Your task to perform on an android device: turn on showing notifications on the lock screen Image 0: 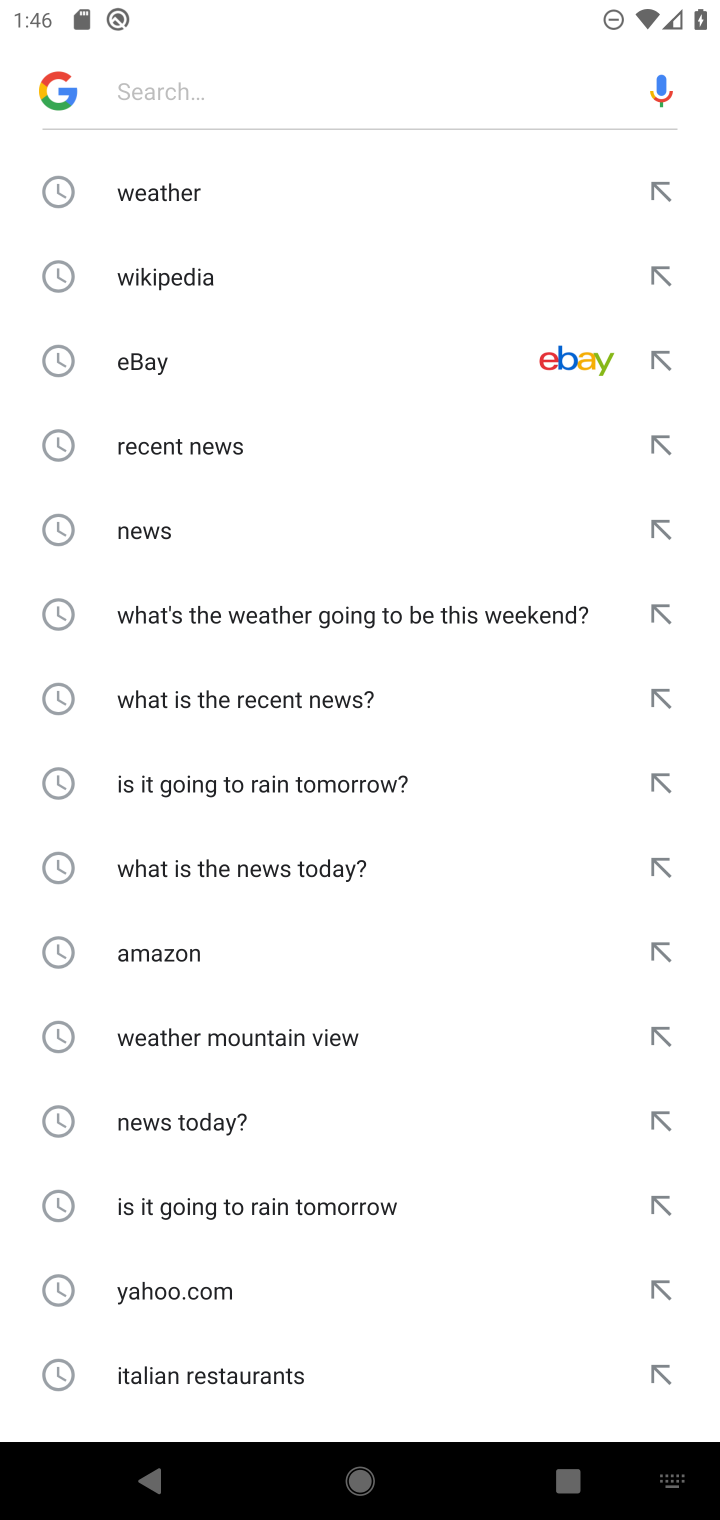
Step 0: press home button
Your task to perform on an android device: turn on showing notifications on the lock screen Image 1: 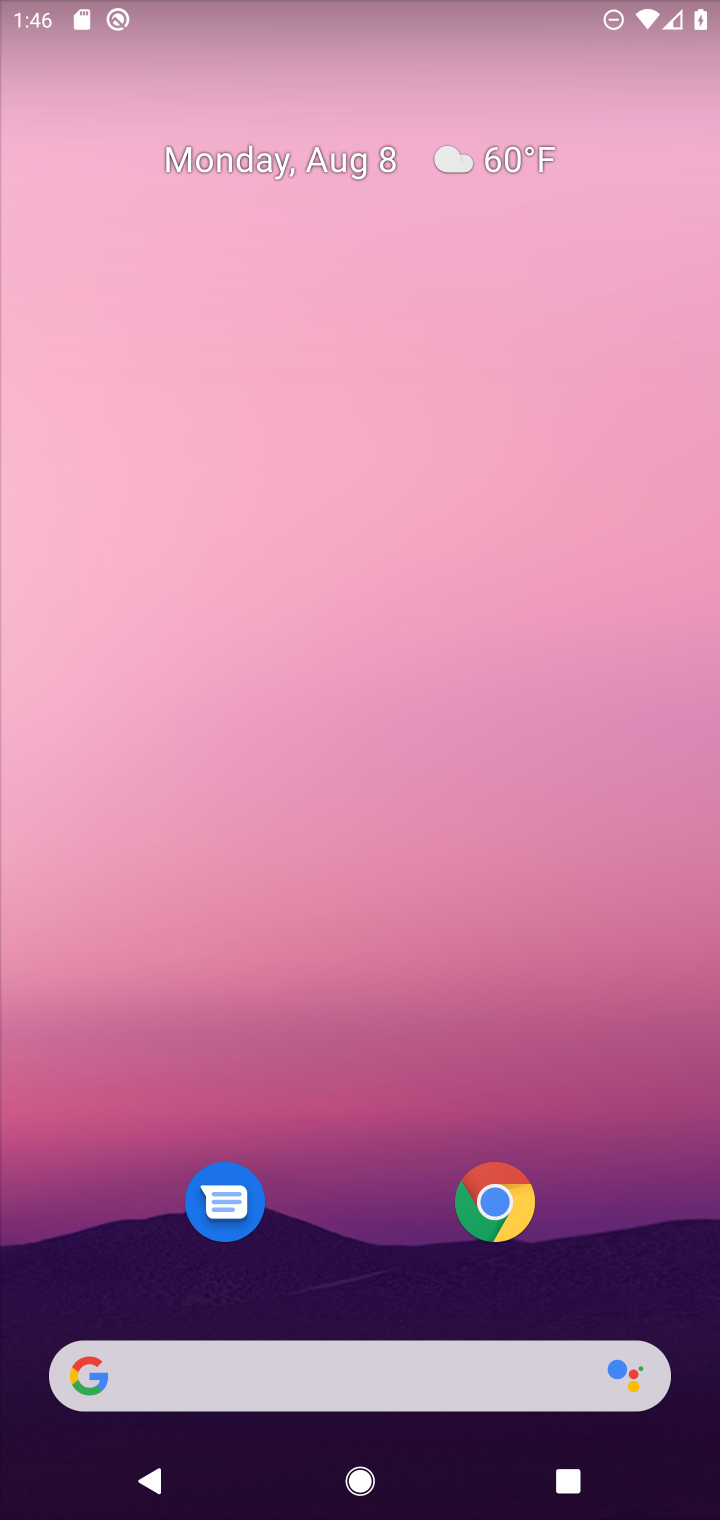
Step 1: drag from (413, 1146) to (482, 327)
Your task to perform on an android device: turn on showing notifications on the lock screen Image 2: 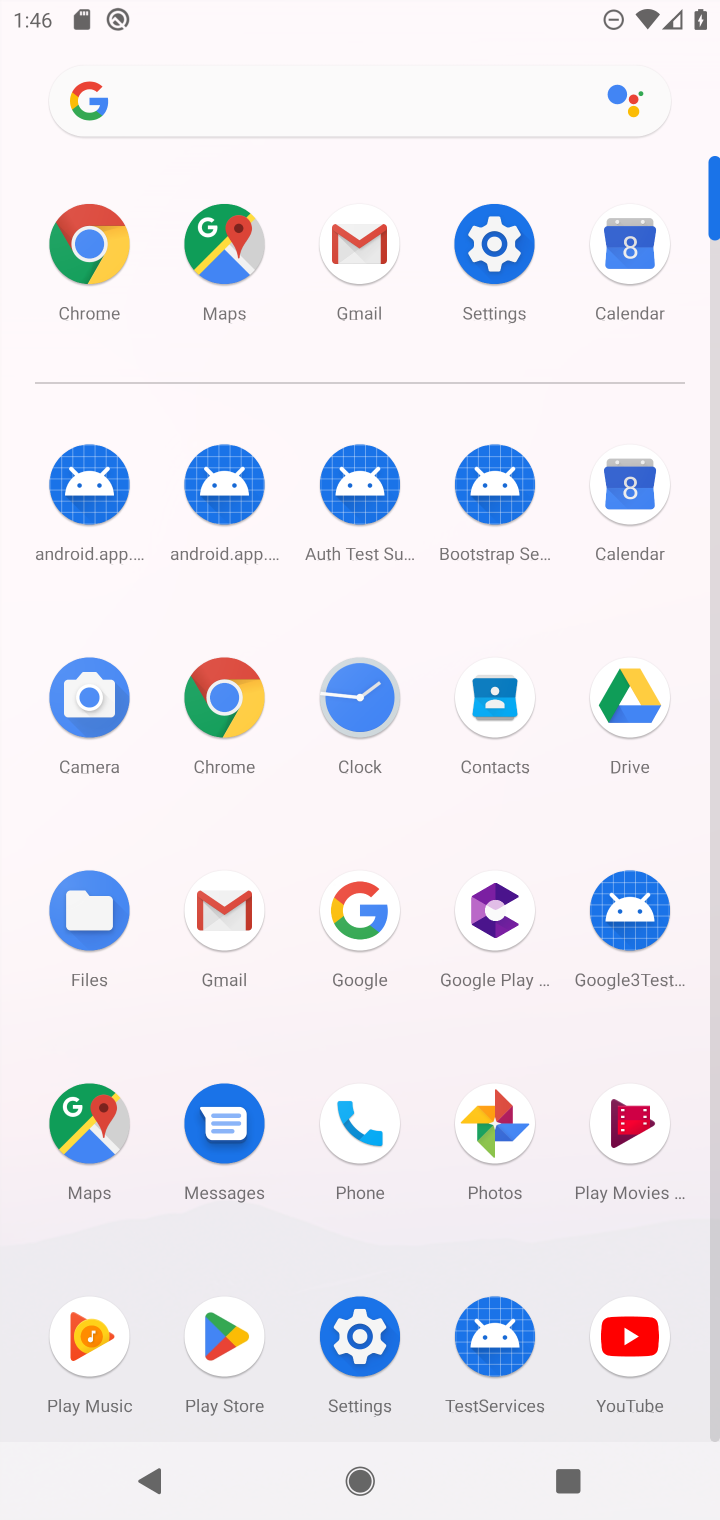
Step 2: click (491, 235)
Your task to perform on an android device: turn on showing notifications on the lock screen Image 3: 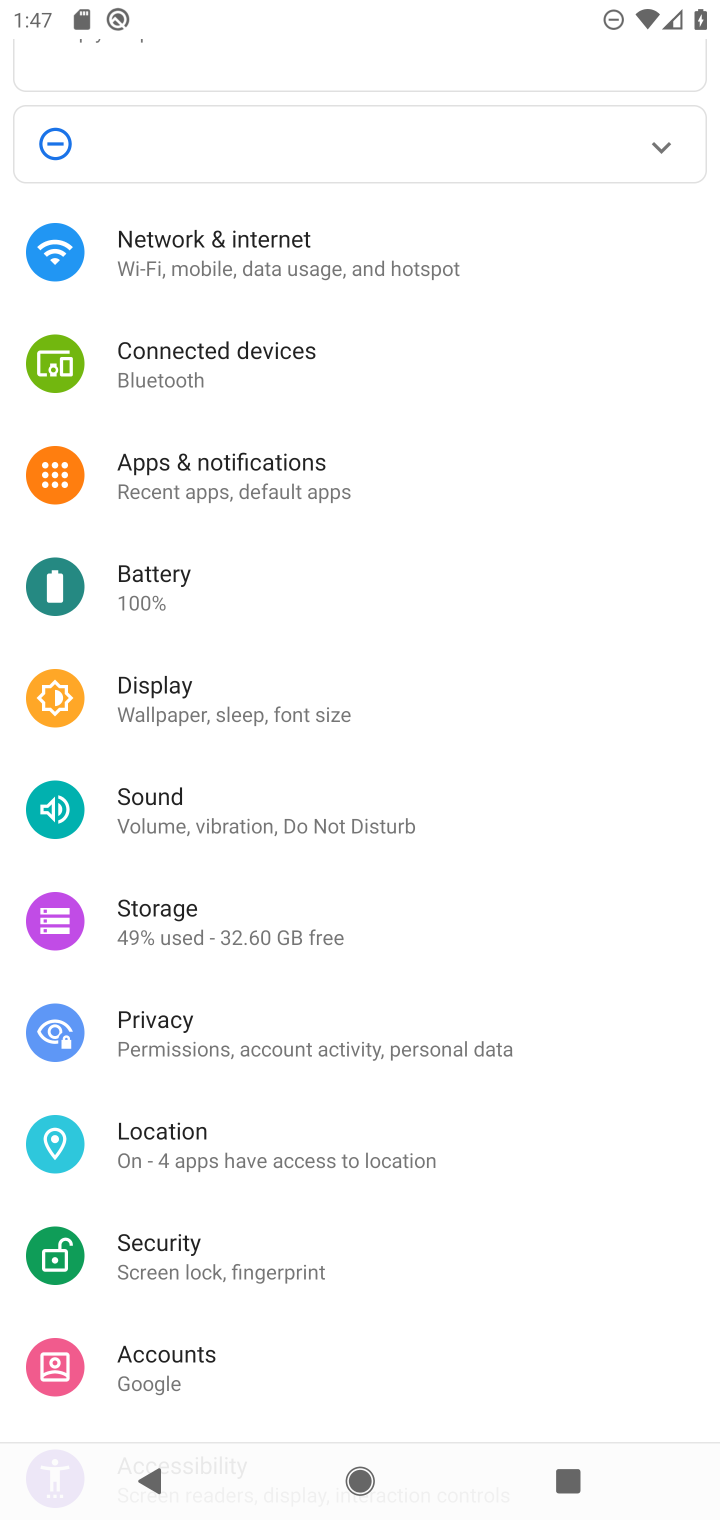
Step 3: click (595, 686)
Your task to perform on an android device: turn on showing notifications on the lock screen Image 4: 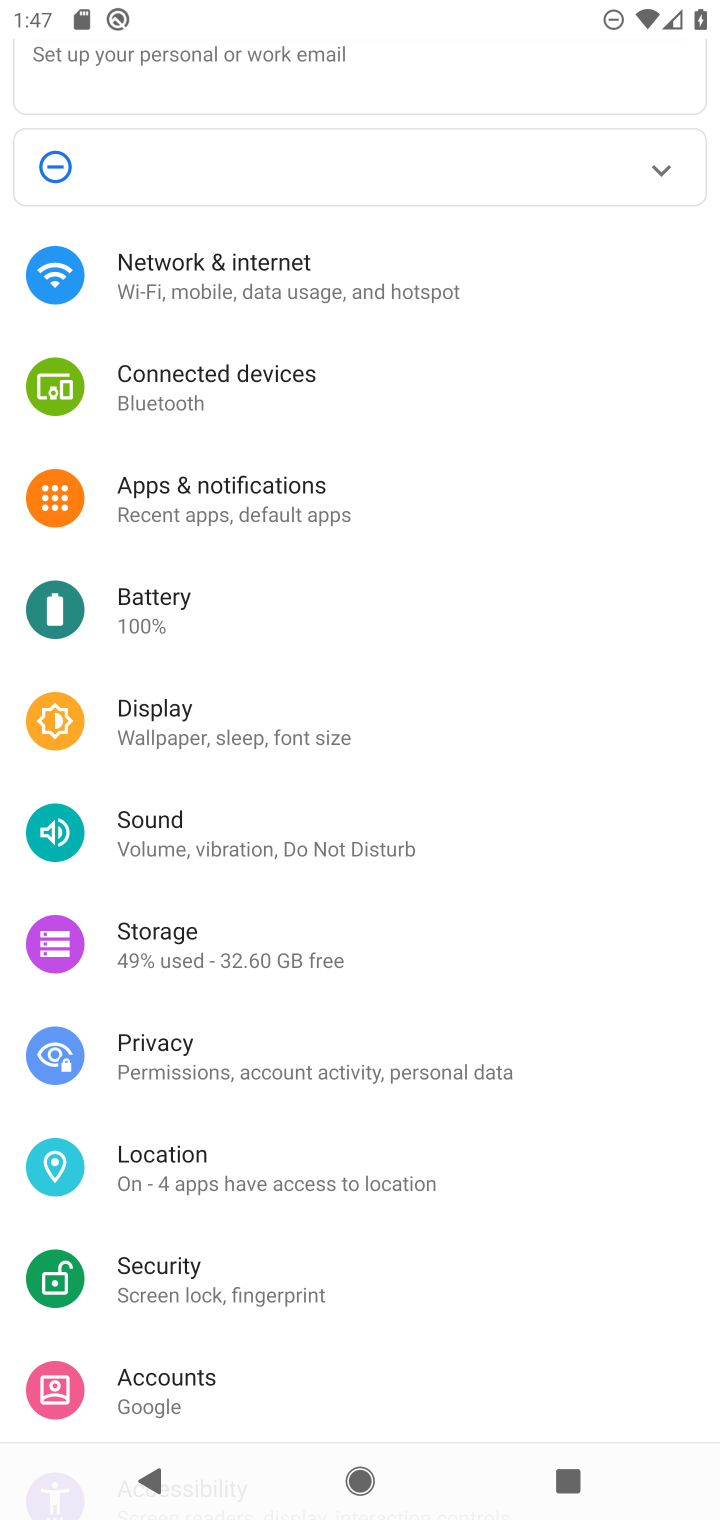
Step 4: drag from (586, 611) to (633, 874)
Your task to perform on an android device: turn on showing notifications on the lock screen Image 5: 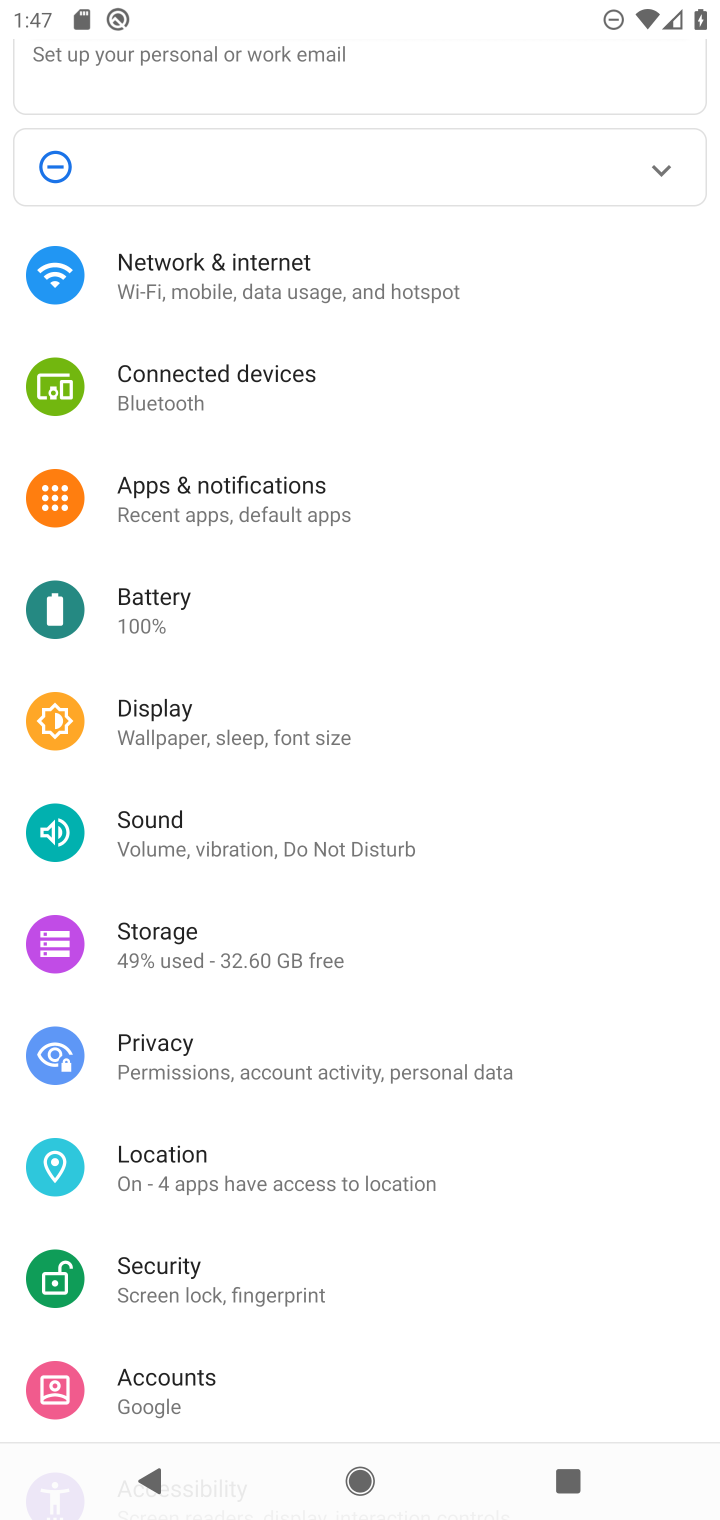
Step 5: click (263, 488)
Your task to perform on an android device: turn on showing notifications on the lock screen Image 6: 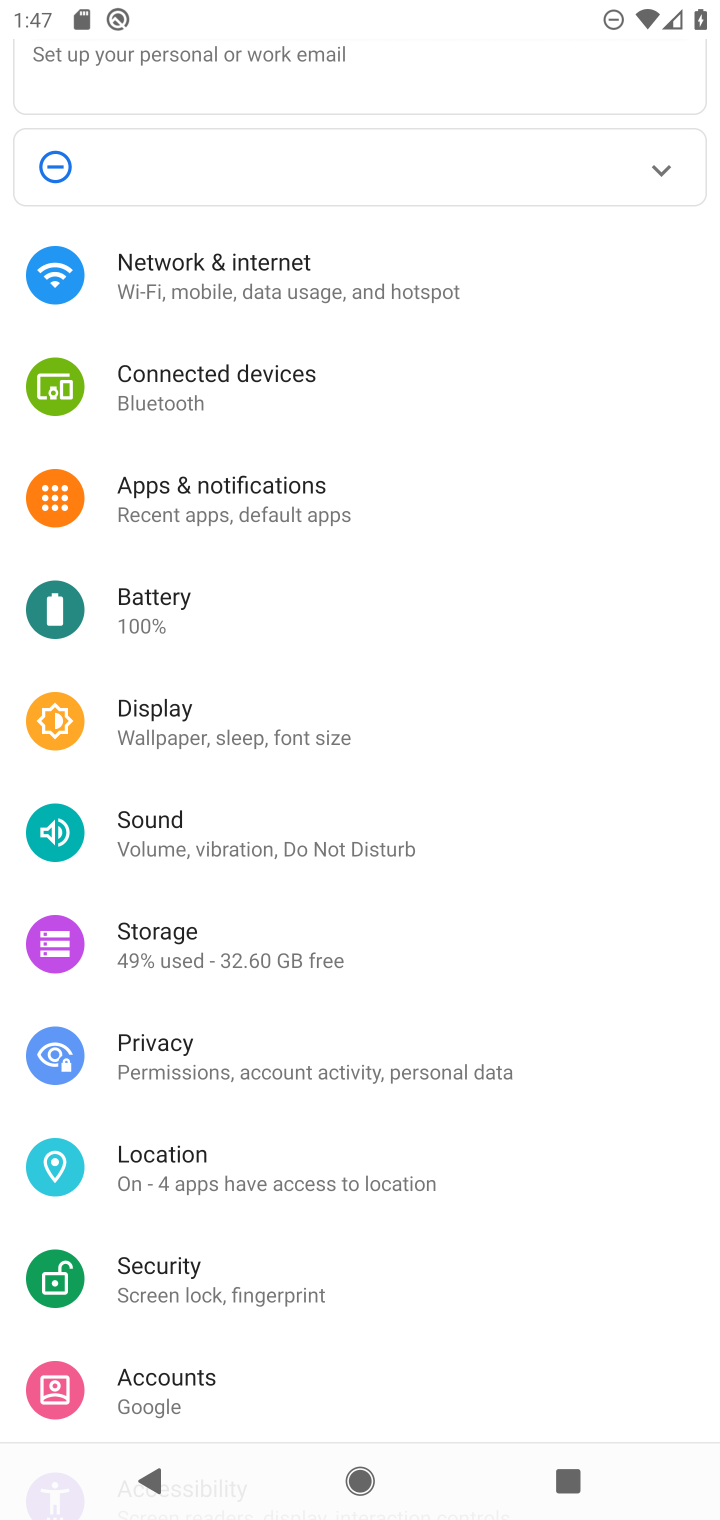
Step 6: click (267, 500)
Your task to perform on an android device: turn on showing notifications on the lock screen Image 7: 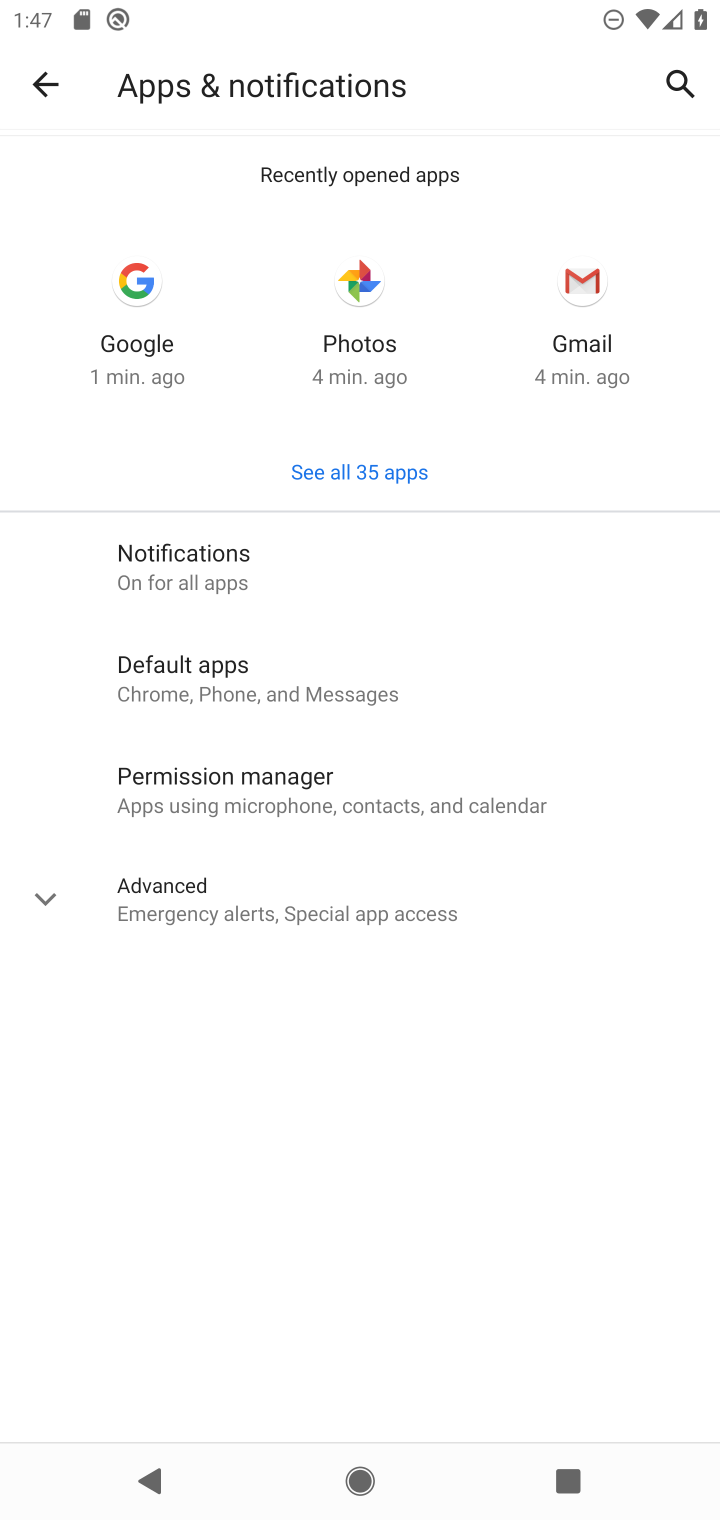
Step 7: click (221, 560)
Your task to perform on an android device: turn on showing notifications on the lock screen Image 8: 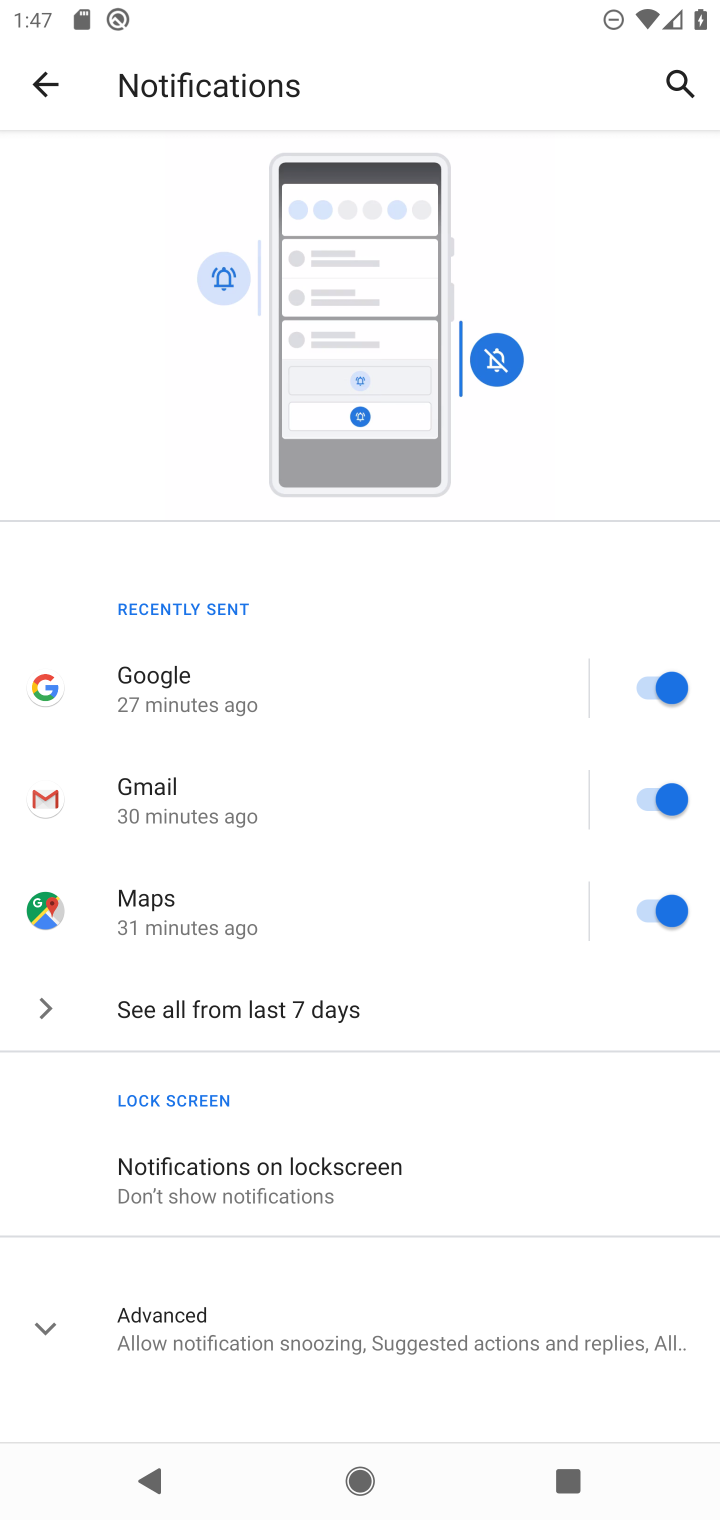
Step 8: click (389, 1180)
Your task to perform on an android device: turn on showing notifications on the lock screen Image 9: 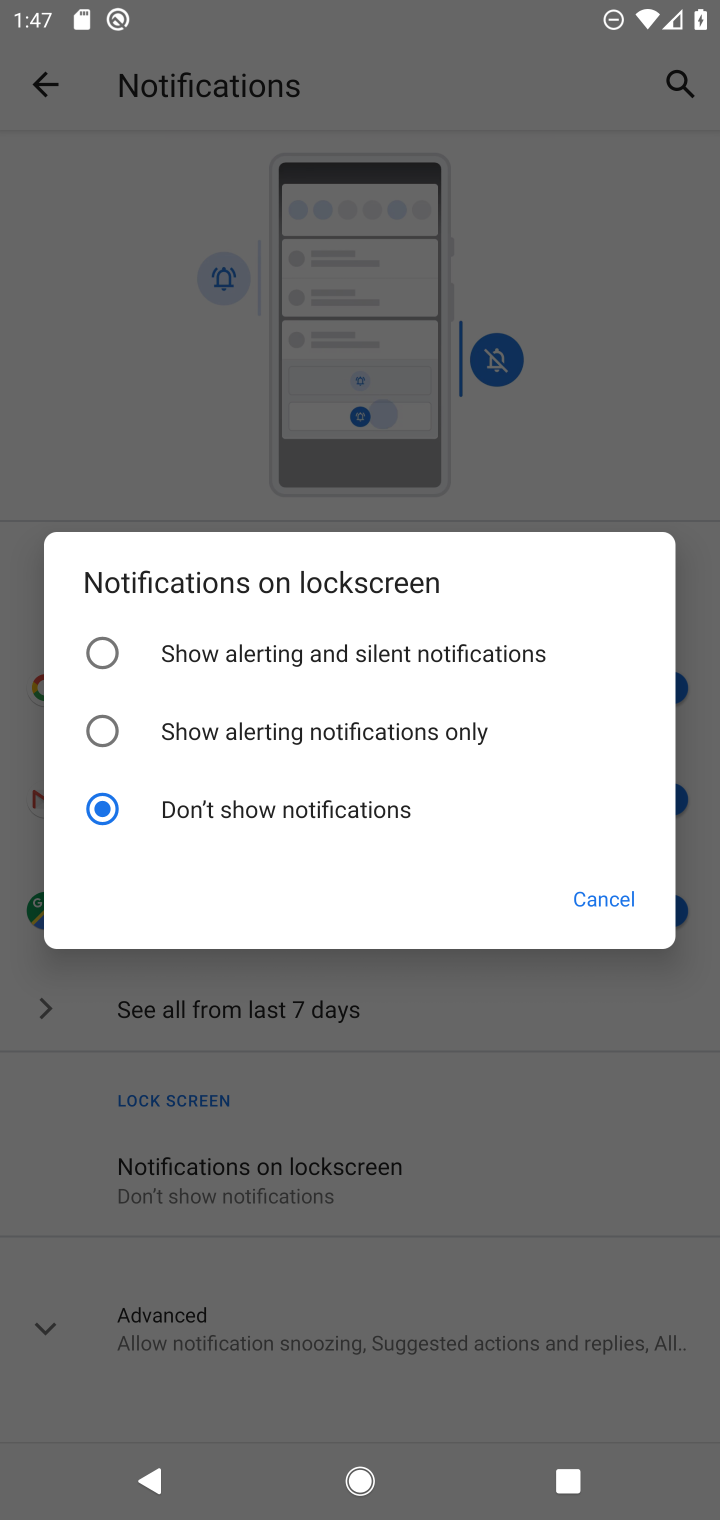
Step 9: click (223, 649)
Your task to perform on an android device: turn on showing notifications on the lock screen Image 10: 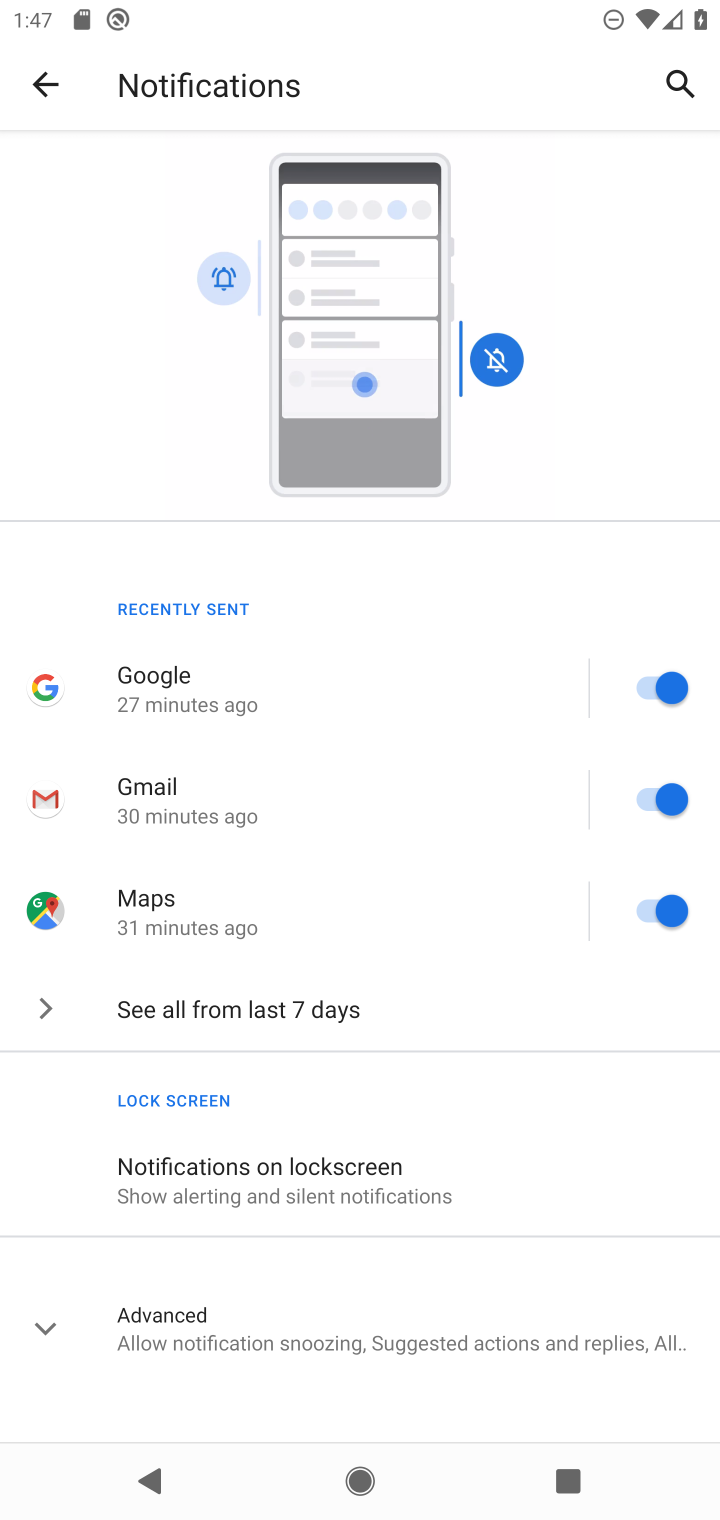
Step 10: task complete